Your task to perform on an android device: change notifications settings Image 0: 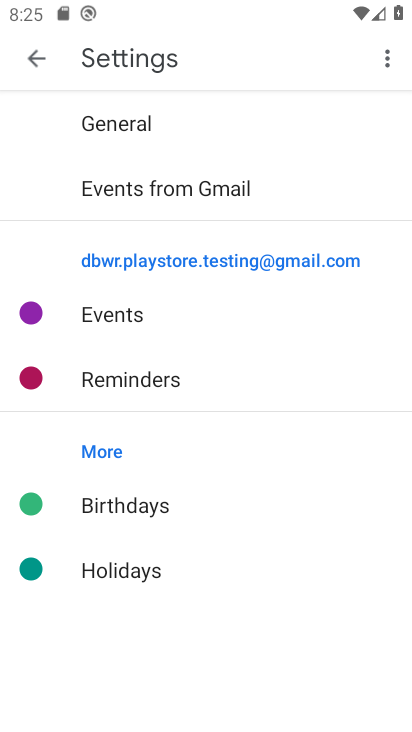
Step 0: press home button
Your task to perform on an android device: change notifications settings Image 1: 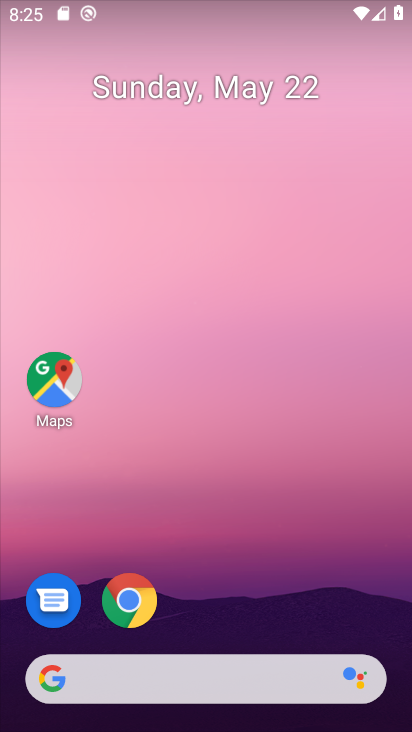
Step 1: drag from (198, 639) to (198, 349)
Your task to perform on an android device: change notifications settings Image 2: 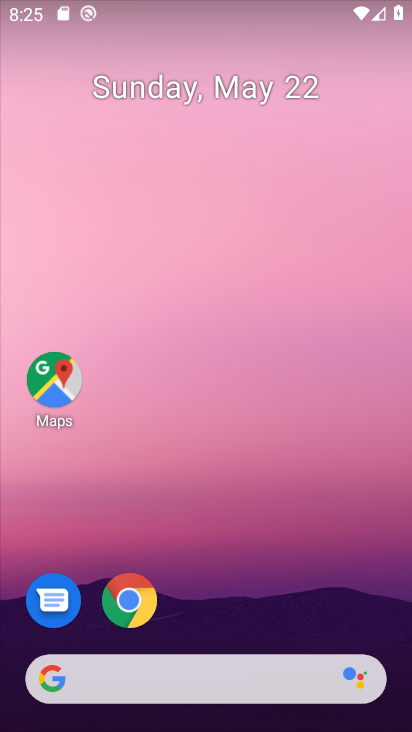
Step 2: drag from (264, 689) to (263, 294)
Your task to perform on an android device: change notifications settings Image 3: 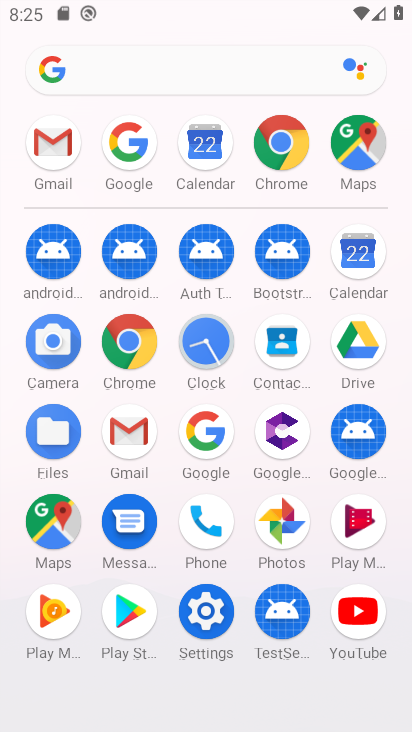
Step 3: click (199, 606)
Your task to perform on an android device: change notifications settings Image 4: 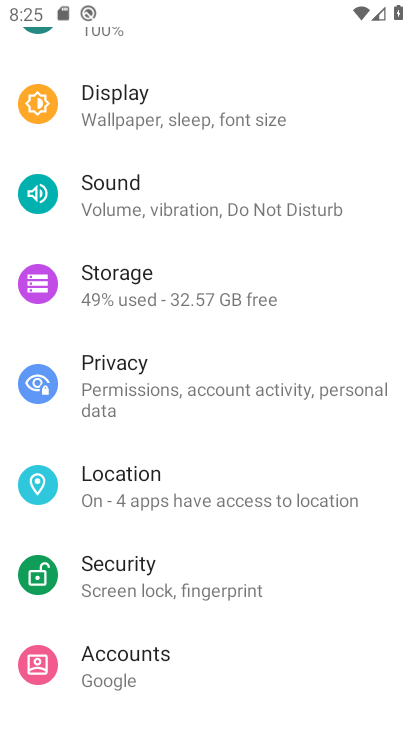
Step 4: drag from (229, 136) to (232, 486)
Your task to perform on an android device: change notifications settings Image 5: 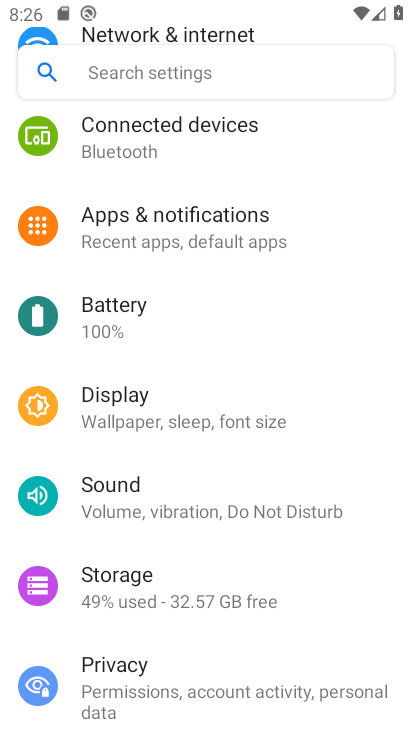
Step 5: click (187, 234)
Your task to perform on an android device: change notifications settings Image 6: 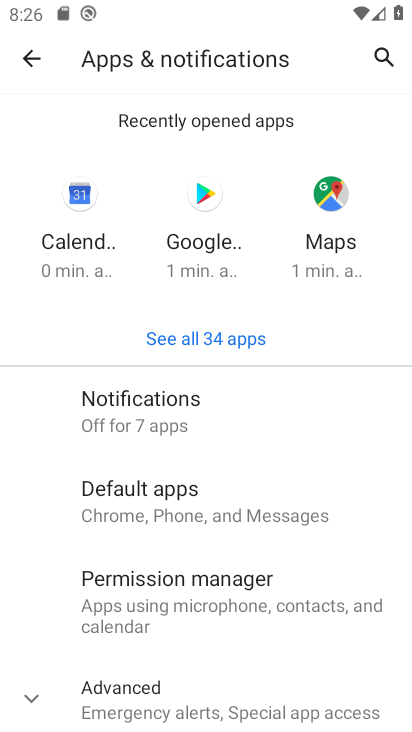
Step 6: click (167, 426)
Your task to perform on an android device: change notifications settings Image 7: 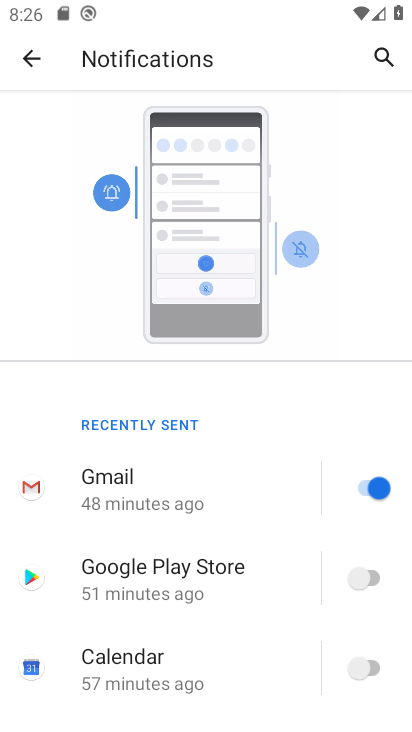
Step 7: click (374, 477)
Your task to perform on an android device: change notifications settings Image 8: 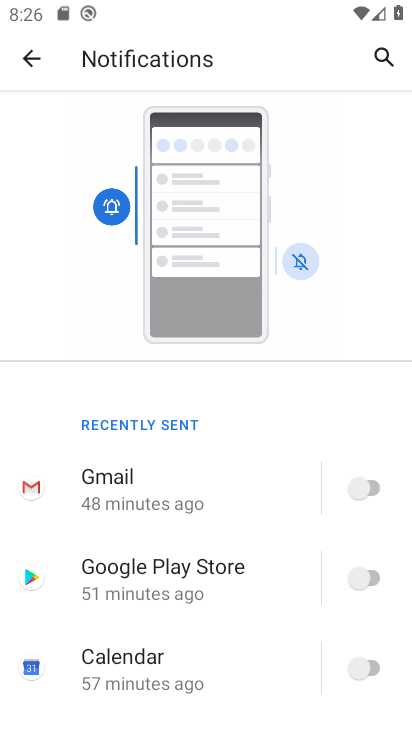
Step 8: drag from (308, 682) to (374, 319)
Your task to perform on an android device: change notifications settings Image 9: 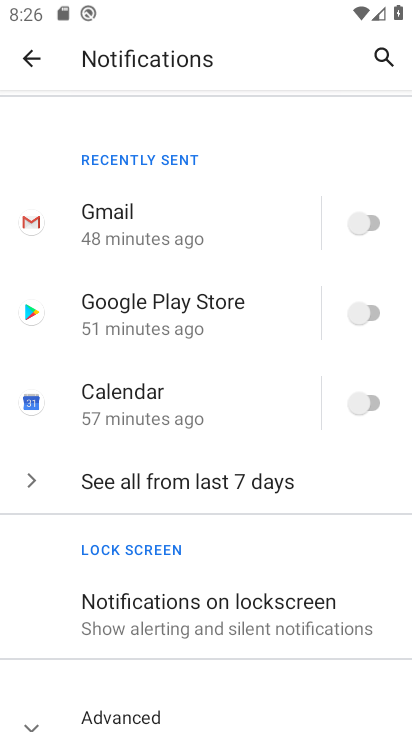
Step 9: click (301, 497)
Your task to perform on an android device: change notifications settings Image 10: 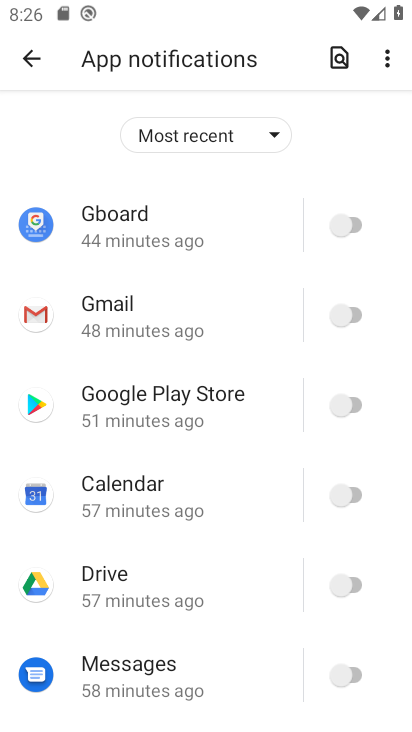
Step 10: task complete